Your task to perform on an android device: Go to sound settings Image 0: 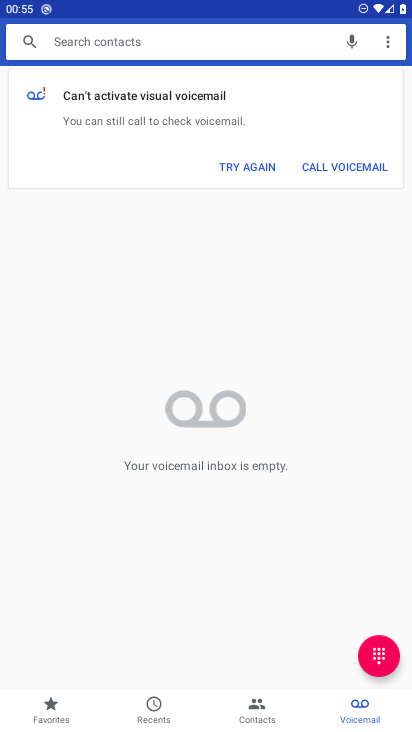
Step 0: press home button
Your task to perform on an android device: Go to sound settings Image 1: 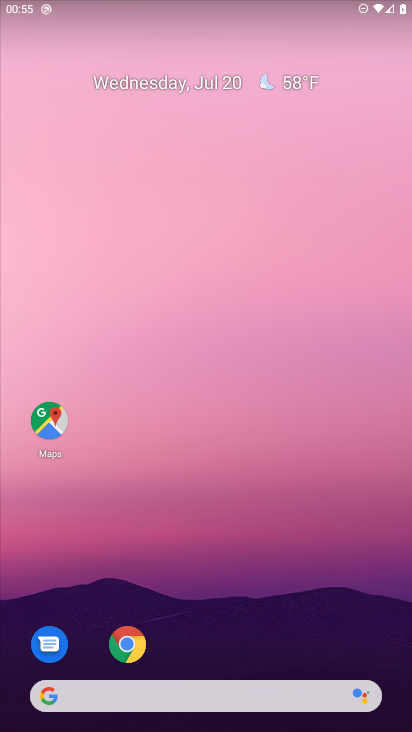
Step 1: drag from (53, 619) to (140, 172)
Your task to perform on an android device: Go to sound settings Image 2: 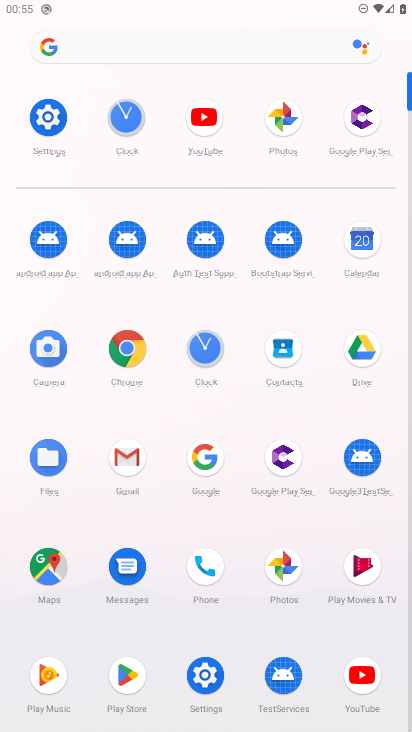
Step 2: click (208, 674)
Your task to perform on an android device: Go to sound settings Image 3: 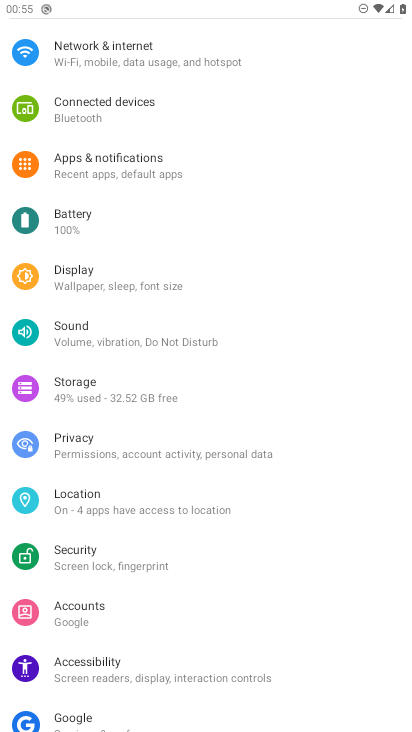
Step 3: click (92, 327)
Your task to perform on an android device: Go to sound settings Image 4: 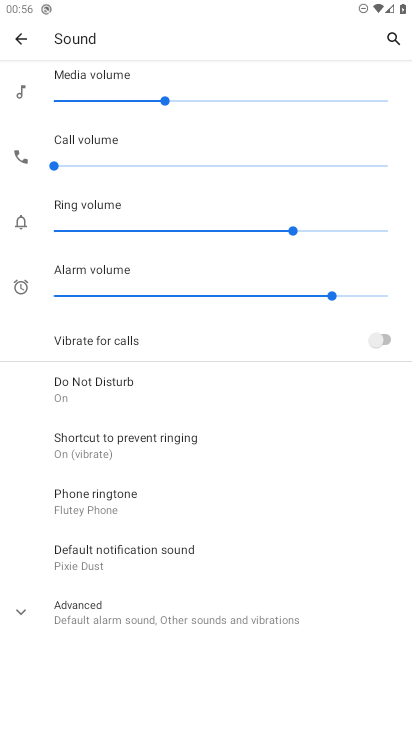
Step 4: task complete